Your task to perform on an android device: Turn on the flashlight Image 0: 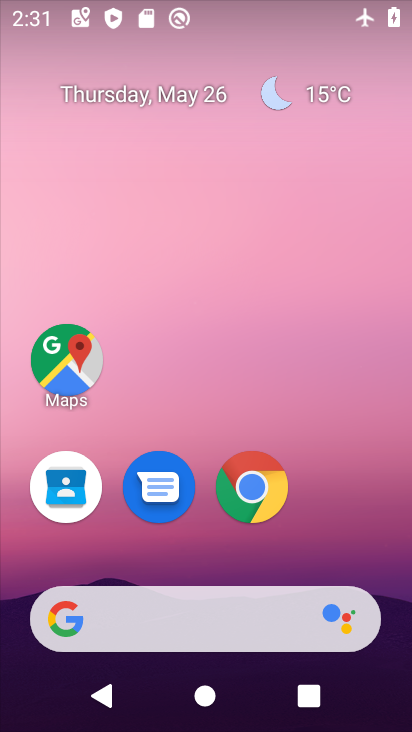
Step 0: drag from (208, 563) to (197, 169)
Your task to perform on an android device: Turn on the flashlight Image 1: 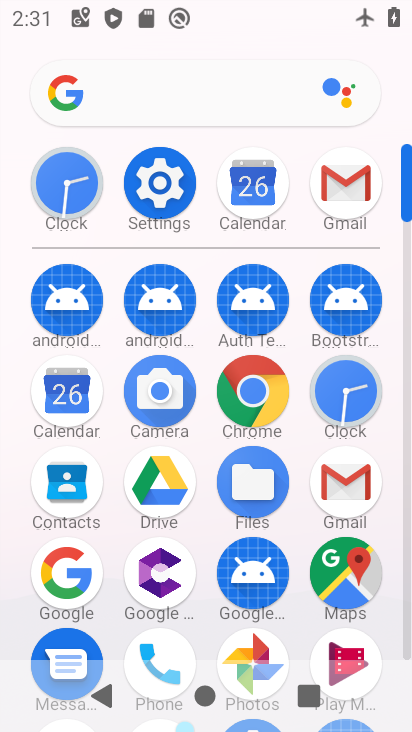
Step 1: click (168, 189)
Your task to perform on an android device: Turn on the flashlight Image 2: 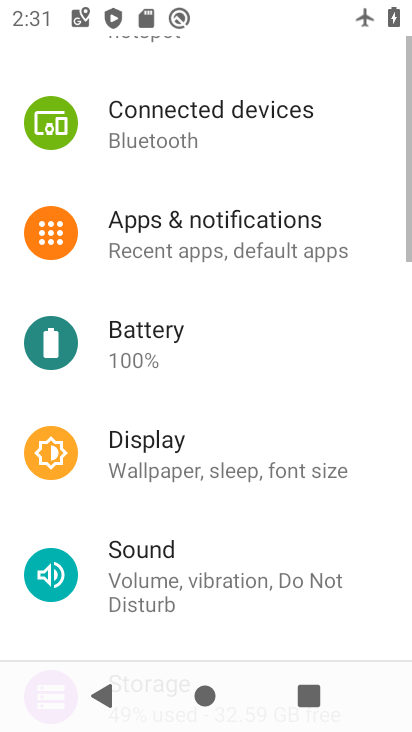
Step 2: task complete